Your task to perform on an android device: see creations saved in the google photos Image 0: 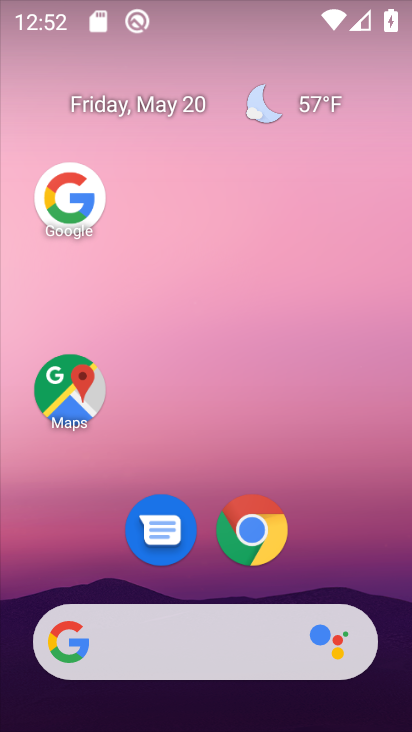
Step 0: drag from (338, 564) to (327, 136)
Your task to perform on an android device: see creations saved in the google photos Image 1: 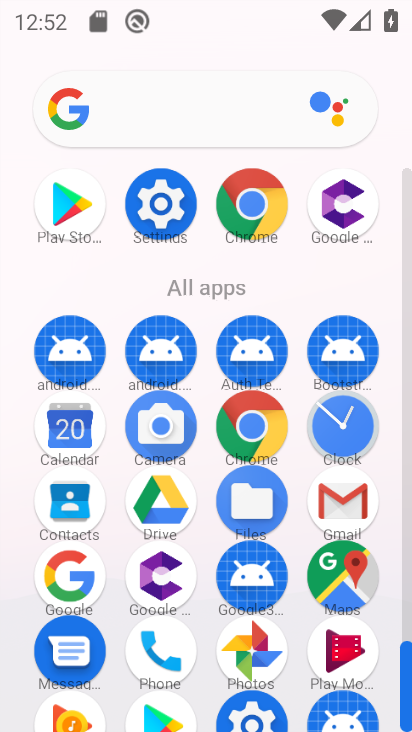
Step 1: click (240, 645)
Your task to perform on an android device: see creations saved in the google photos Image 2: 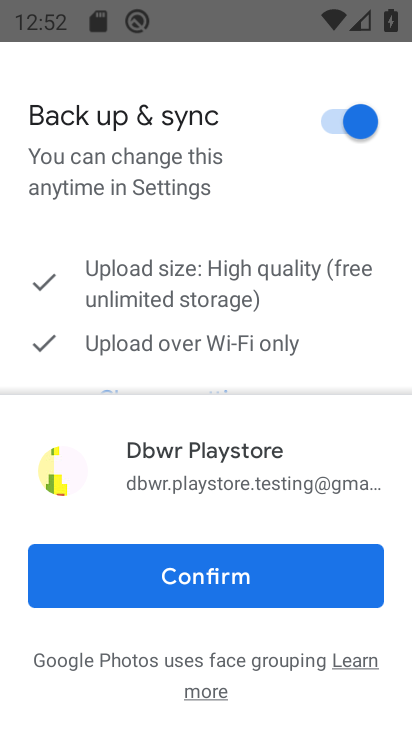
Step 2: click (281, 599)
Your task to perform on an android device: see creations saved in the google photos Image 3: 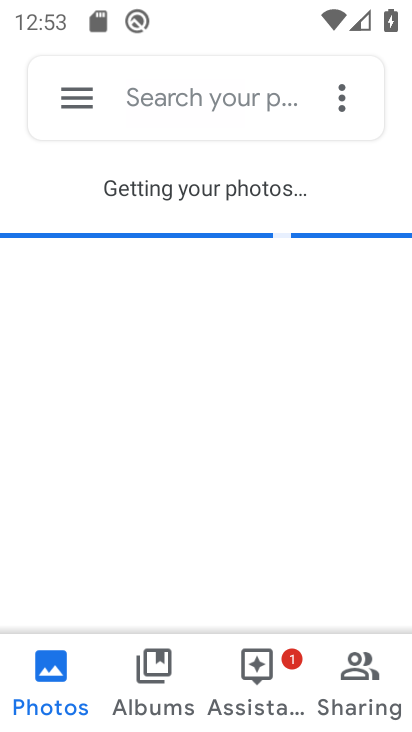
Step 3: click (186, 105)
Your task to perform on an android device: see creations saved in the google photos Image 4: 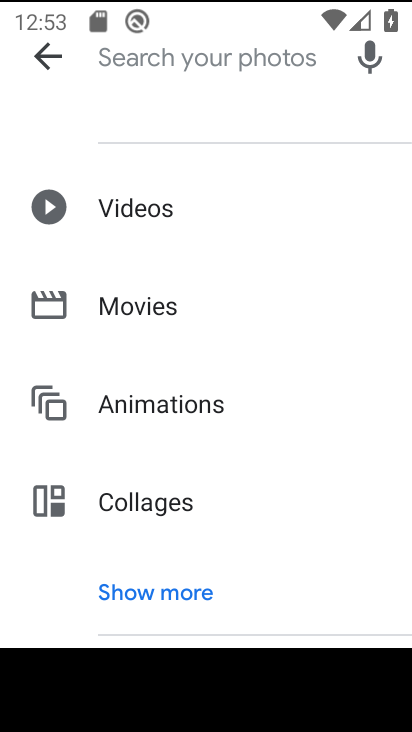
Step 4: drag from (166, 492) to (215, 157)
Your task to perform on an android device: see creations saved in the google photos Image 5: 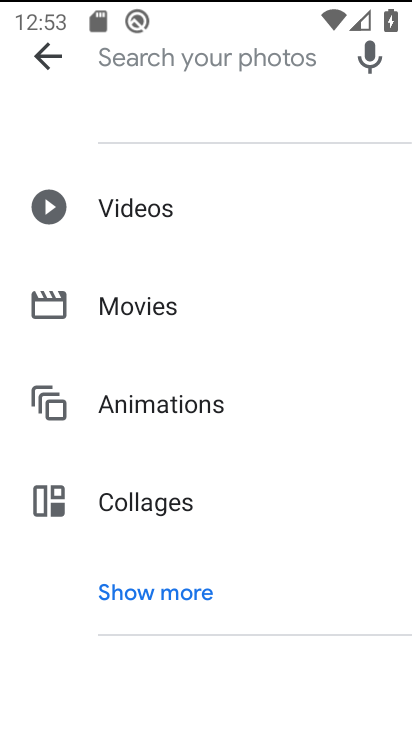
Step 5: click (212, 593)
Your task to perform on an android device: see creations saved in the google photos Image 6: 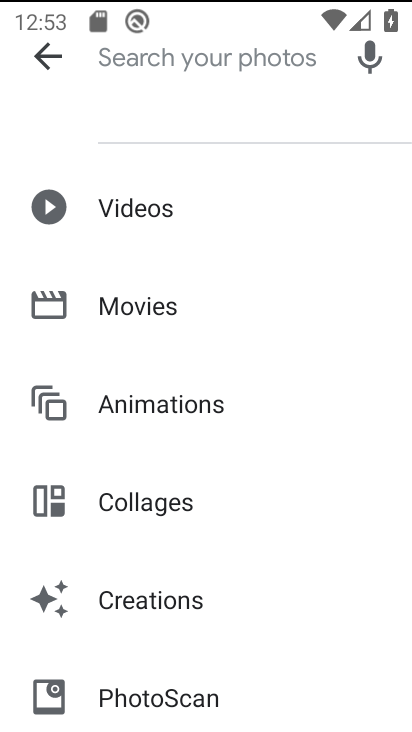
Step 6: drag from (212, 593) to (238, 292)
Your task to perform on an android device: see creations saved in the google photos Image 7: 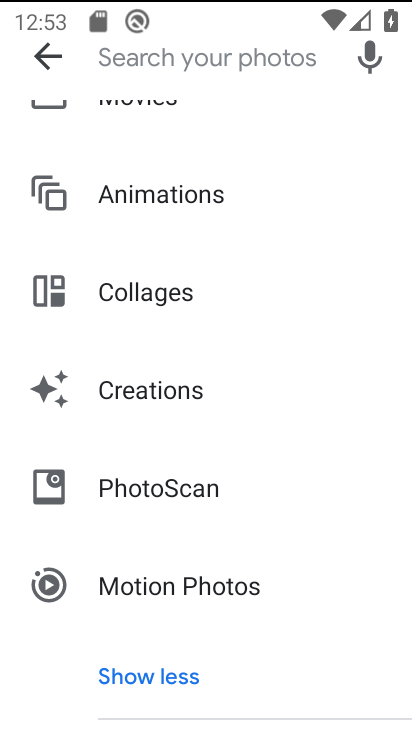
Step 7: click (164, 384)
Your task to perform on an android device: see creations saved in the google photos Image 8: 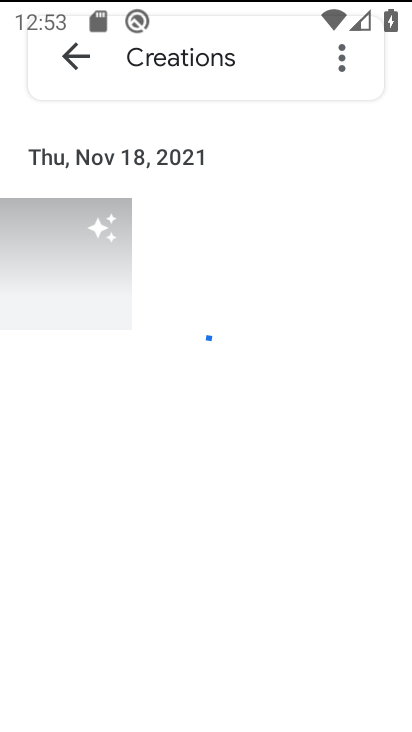
Step 8: task complete